Your task to perform on an android device: Open the web browser Image 0: 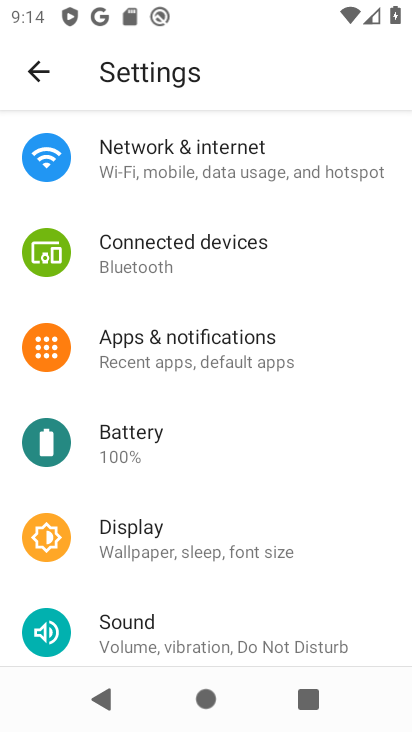
Step 0: press home button
Your task to perform on an android device: Open the web browser Image 1: 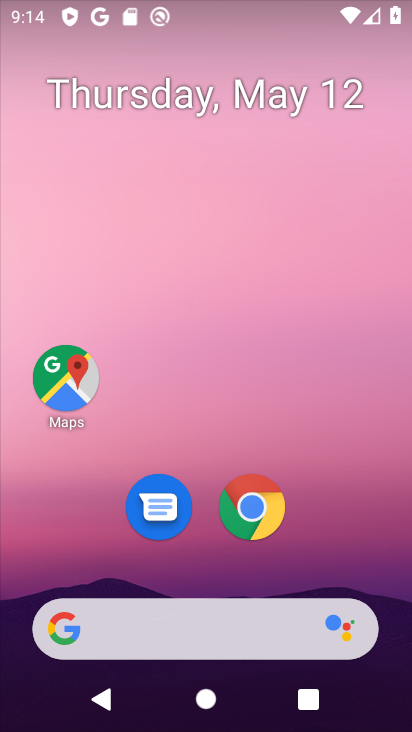
Step 1: click (242, 533)
Your task to perform on an android device: Open the web browser Image 2: 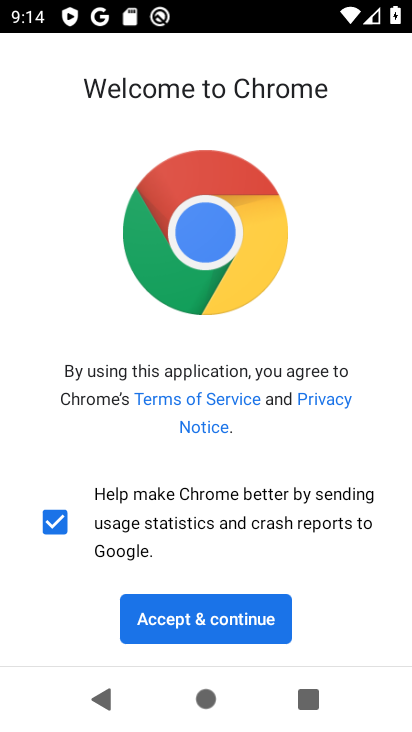
Step 2: click (269, 614)
Your task to perform on an android device: Open the web browser Image 3: 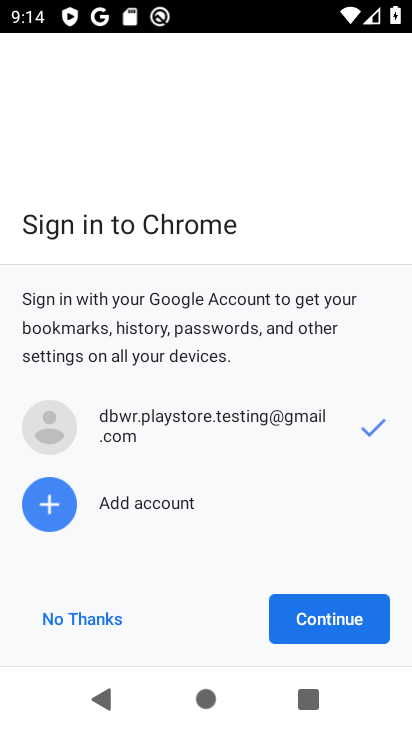
Step 3: click (358, 605)
Your task to perform on an android device: Open the web browser Image 4: 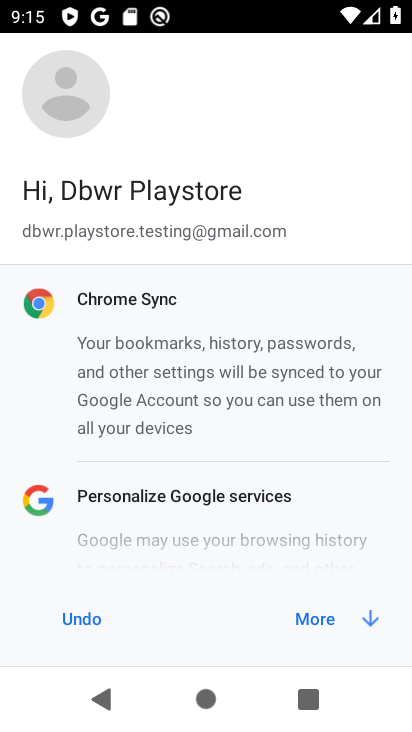
Step 4: click (342, 626)
Your task to perform on an android device: Open the web browser Image 5: 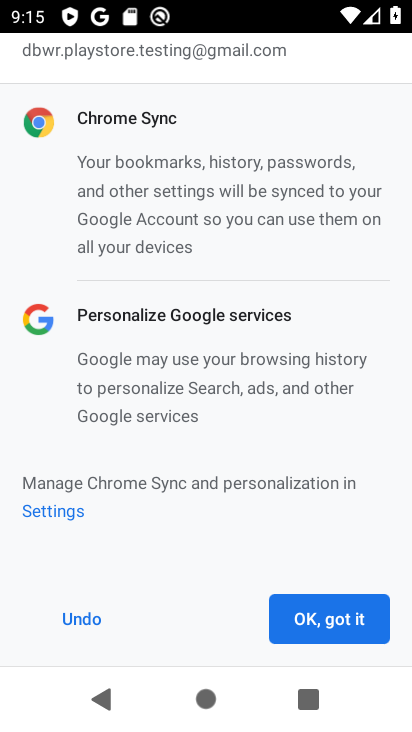
Step 5: click (342, 626)
Your task to perform on an android device: Open the web browser Image 6: 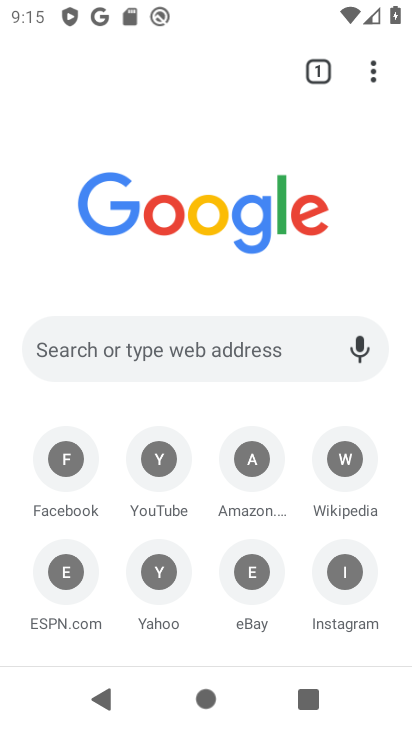
Step 6: task complete